Your task to perform on an android device: Play the last video I watched on Youtube Image 0: 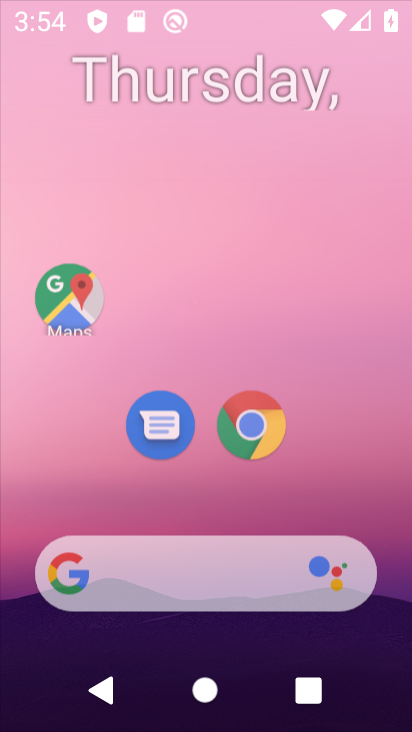
Step 0: click (277, 442)
Your task to perform on an android device: Play the last video I watched on Youtube Image 1: 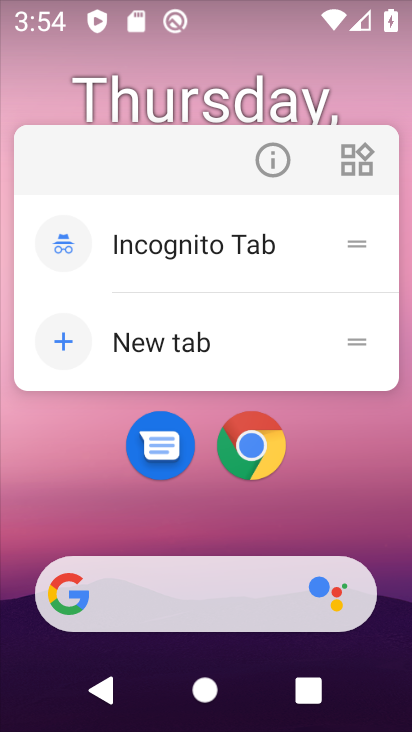
Step 1: click (277, 442)
Your task to perform on an android device: Play the last video I watched on Youtube Image 2: 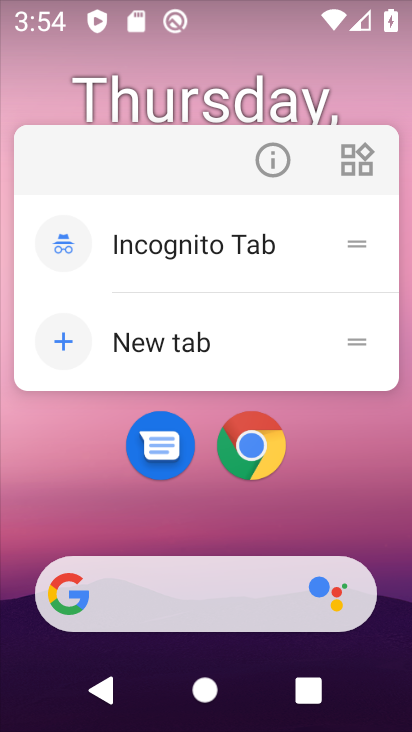
Step 2: click (277, 443)
Your task to perform on an android device: Play the last video I watched on Youtube Image 3: 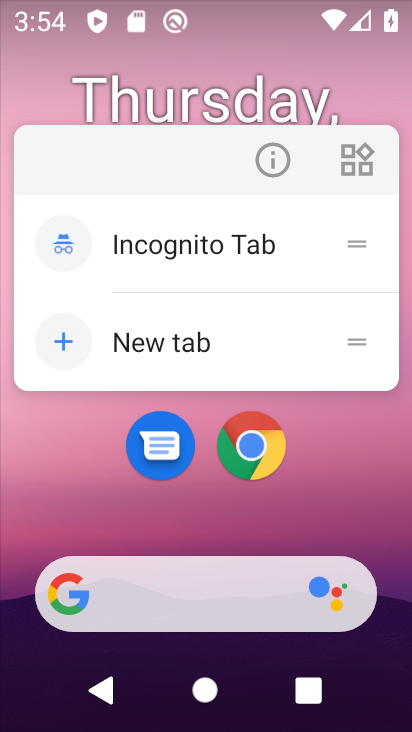
Step 3: click (277, 443)
Your task to perform on an android device: Play the last video I watched on Youtube Image 4: 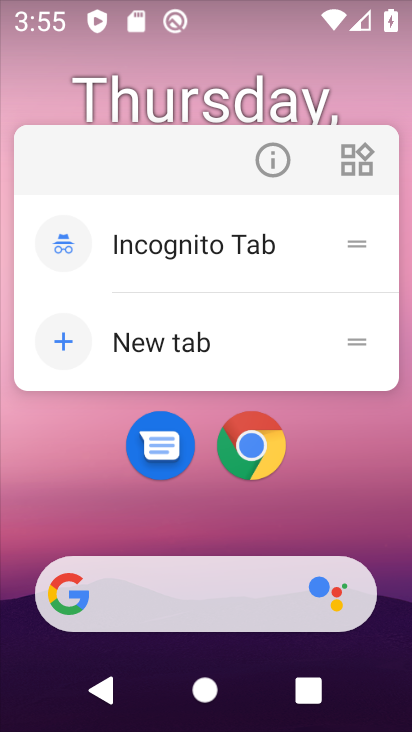
Step 4: click (272, 436)
Your task to perform on an android device: Play the last video I watched on Youtube Image 5: 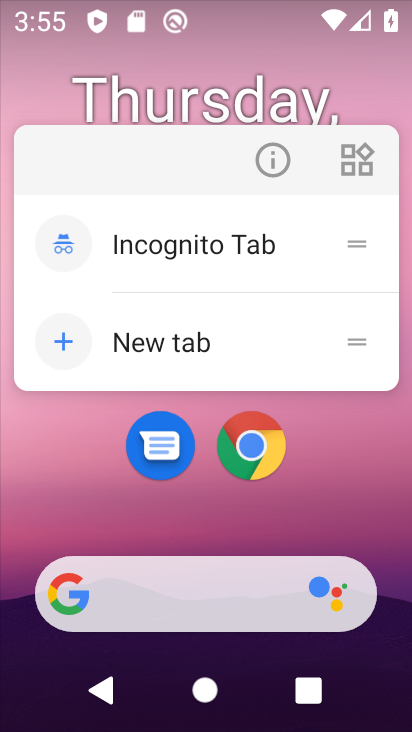
Step 5: click (272, 435)
Your task to perform on an android device: Play the last video I watched on Youtube Image 6: 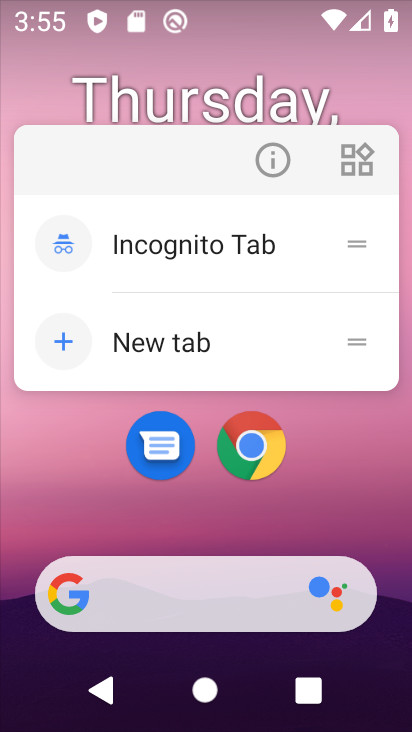
Step 6: click (322, 452)
Your task to perform on an android device: Play the last video I watched on Youtube Image 7: 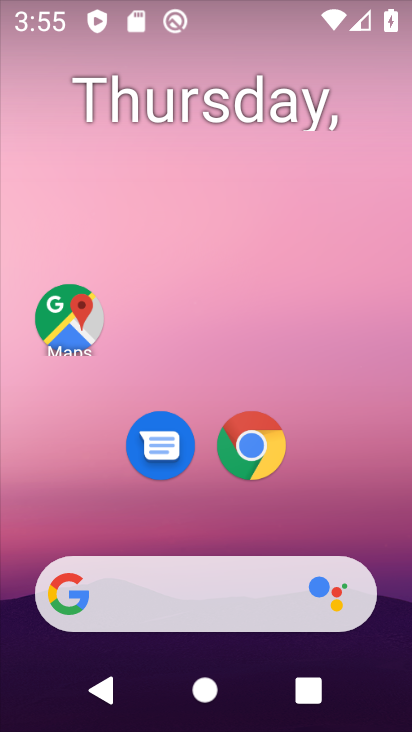
Step 7: drag from (348, 492) to (404, 177)
Your task to perform on an android device: Play the last video I watched on Youtube Image 8: 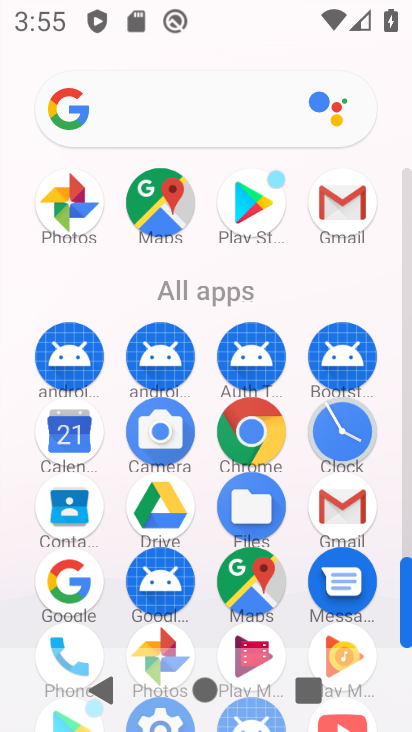
Step 8: drag from (377, 672) to (410, 422)
Your task to perform on an android device: Play the last video I watched on Youtube Image 9: 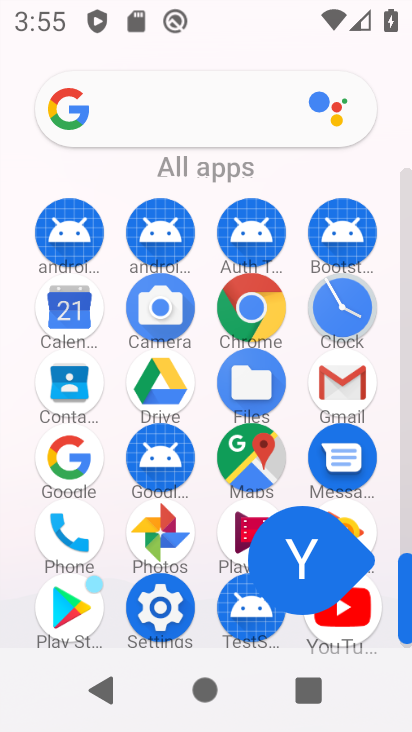
Step 9: click (351, 614)
Your task to perform on an android device: Play the last video I watched on Youtube Image 10: 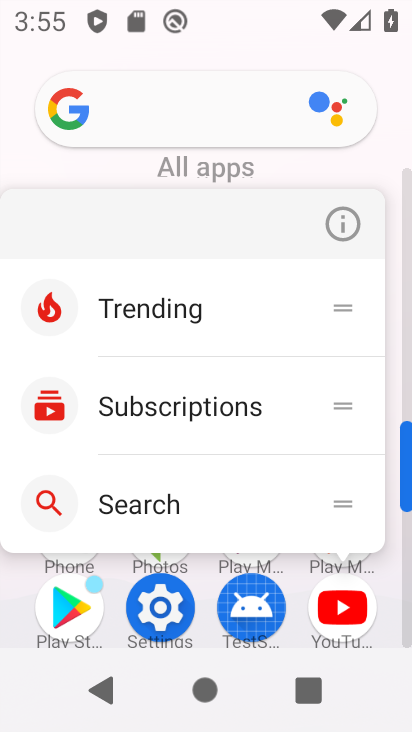
Step 10: click (351, 613)
Your task to perform on an android device: Play the last video I watched on Youtube Image 11: 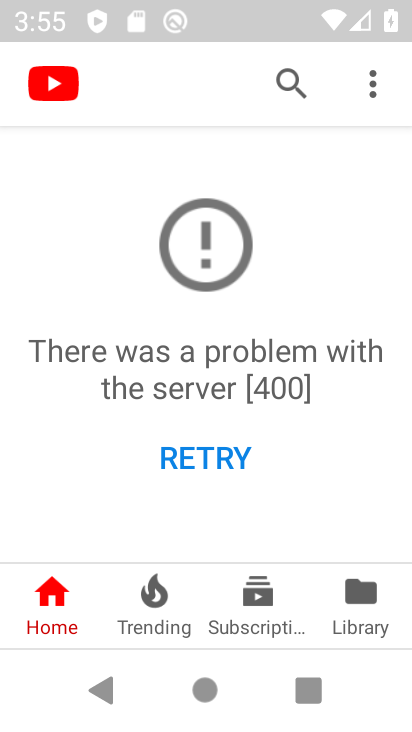
Step 11: click (364, 622)
Your task to perform on an android device: Play the last video I watched on Youtube Image 12: 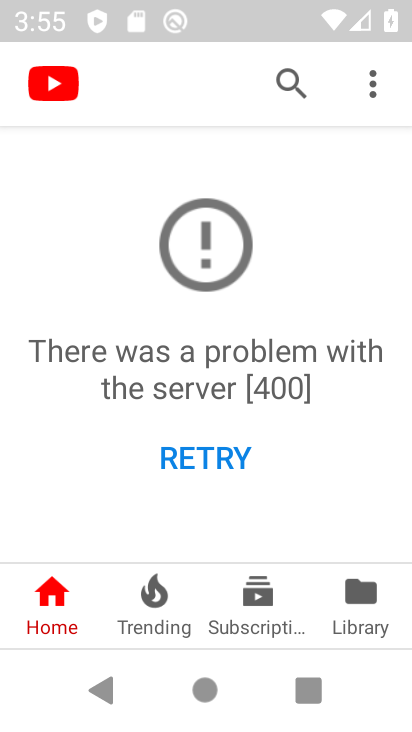
Step 12: click (364, 617)
Your task to perform on an android device: Play the last video I watched on Youtube Image 13: 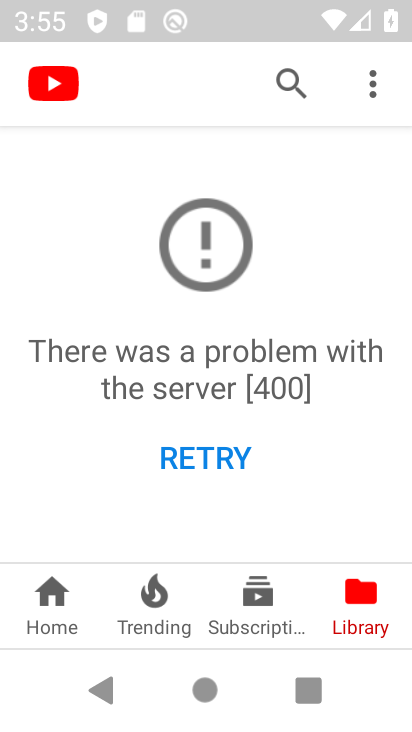
Step 13: click (364, 615)
Your task to perform on an android device: Play the last video I watched on Youtube Image 14: 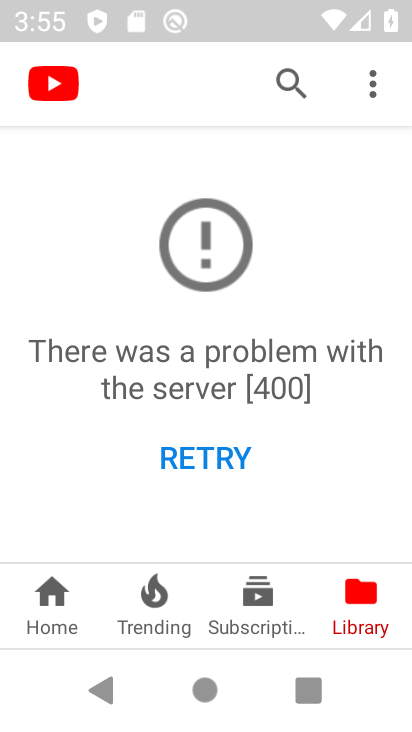
Step 14: click (364, 614)
Your task to perform on an android device: Play the last video I watched on Youtube Image 15: 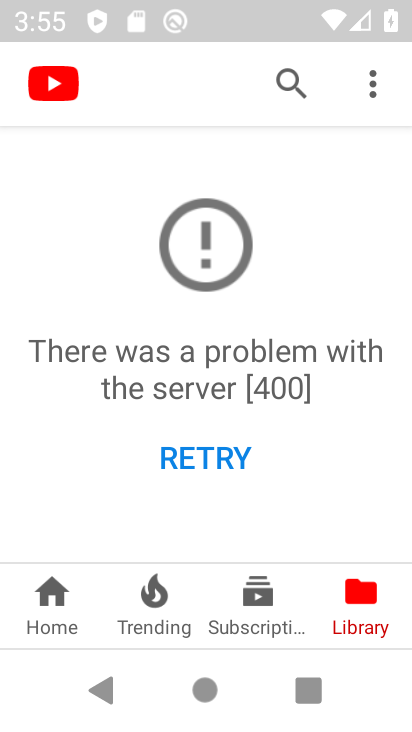
Step 15: click (364, 613)
Your task to perform on an android device: Play the last video I watched on Youtube Image 16: 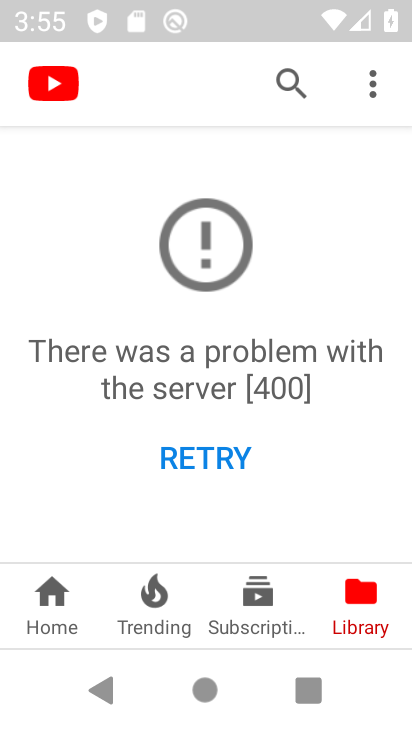
Step 16: click (216, 451)
Your task to perform on an android device: Play the last video I watched on Youtube Image 17: 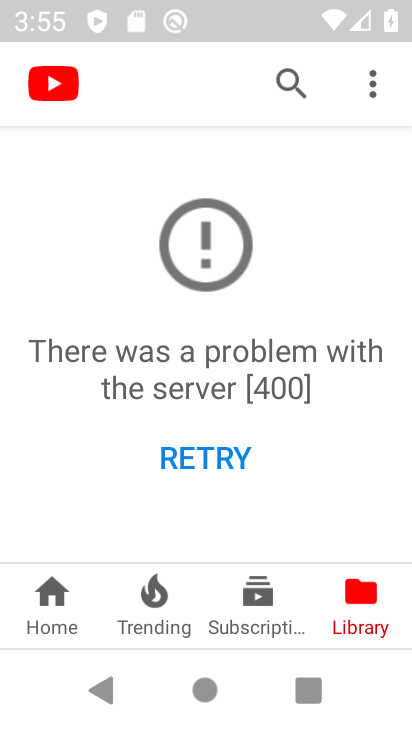
Step 17: click (217, 451)
Your task to perform on an android device: Play the last video I watched on Youtube Image 18: 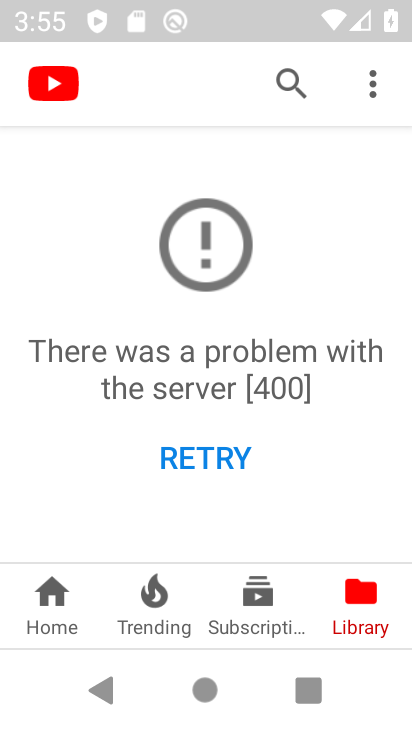
Step 18: task complete